Your task to perform on an android device: install app "Pluto TV - Live TV and Movies" Image 0: 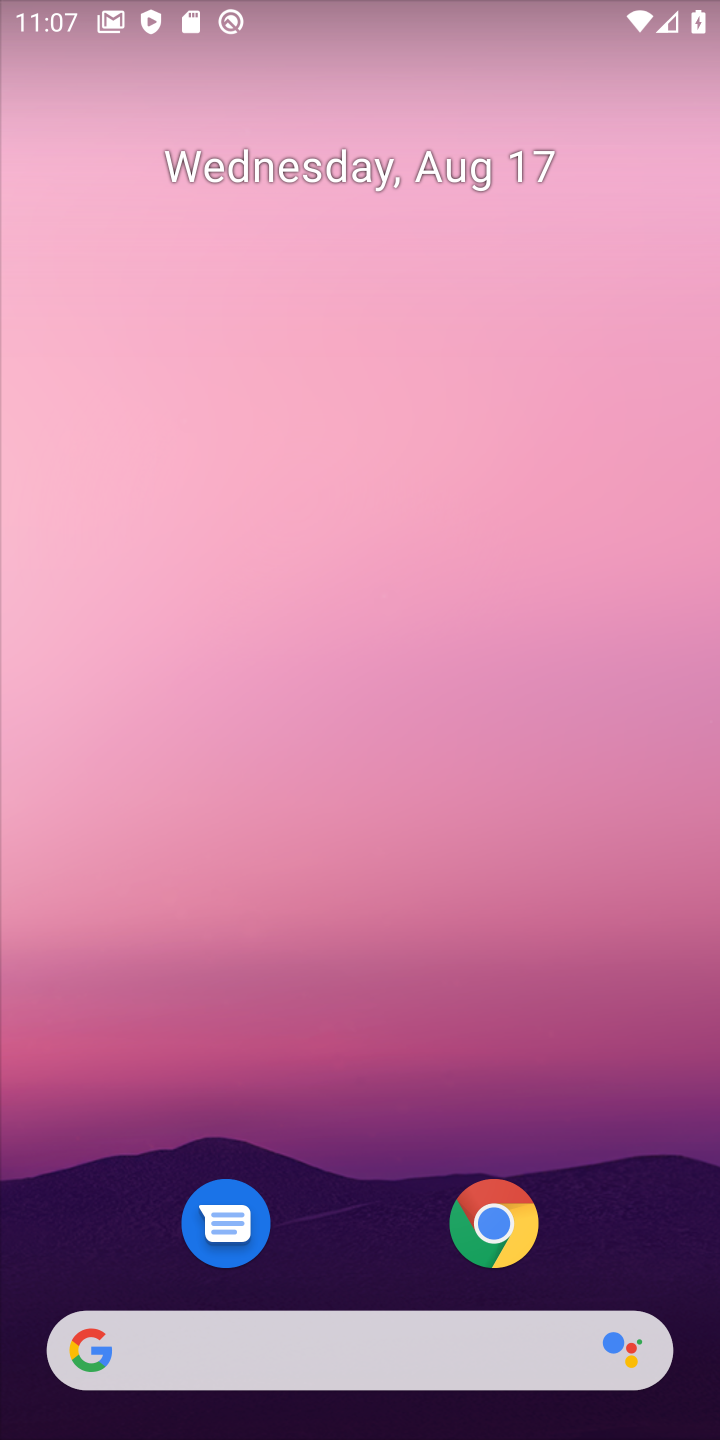
Step 0: drag from (270, 750) to (244, 182)
Your task to perform on an android device: install app "Pluto TV - Live TV and Movies" Image 1: 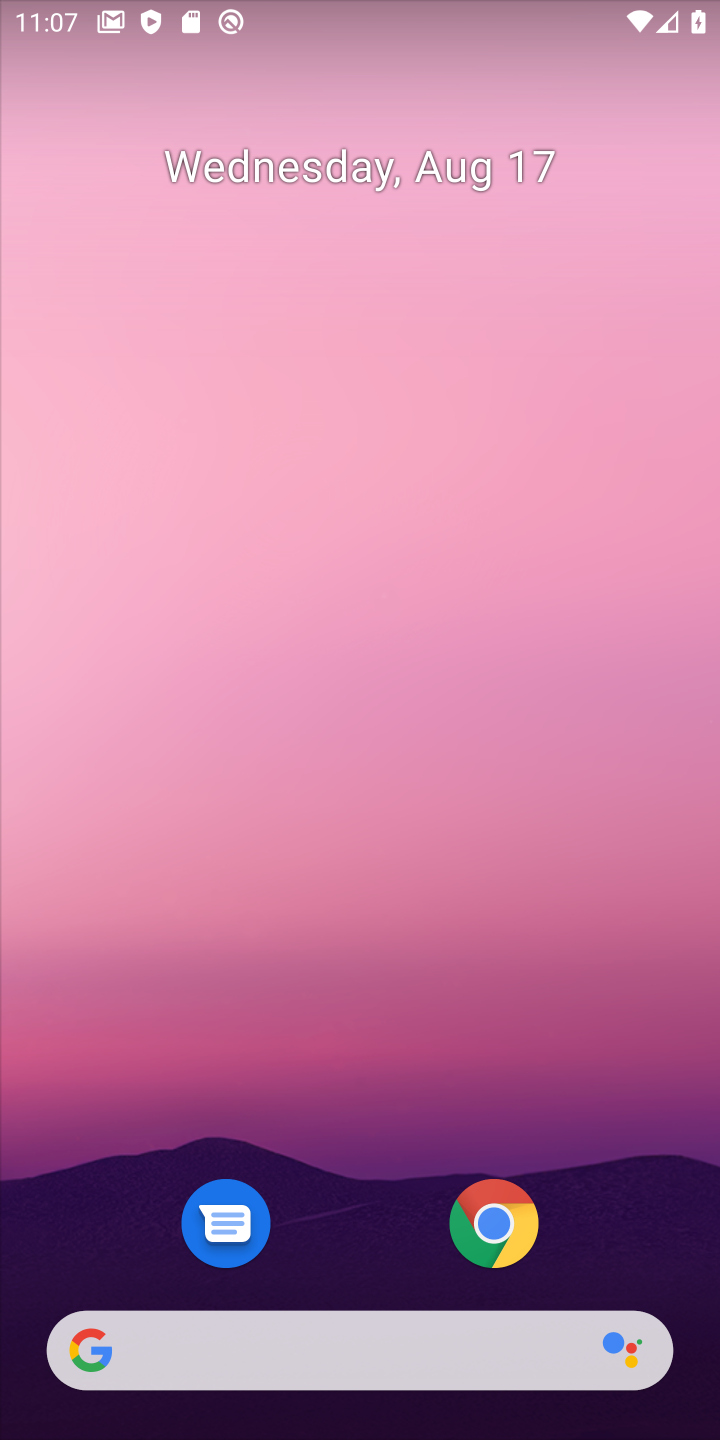
Step 1: drag from (325, 1294) to (325, 89)
Your task to perform on an android device: install app "Pluto TV - Live TV and Movies" Image 2: 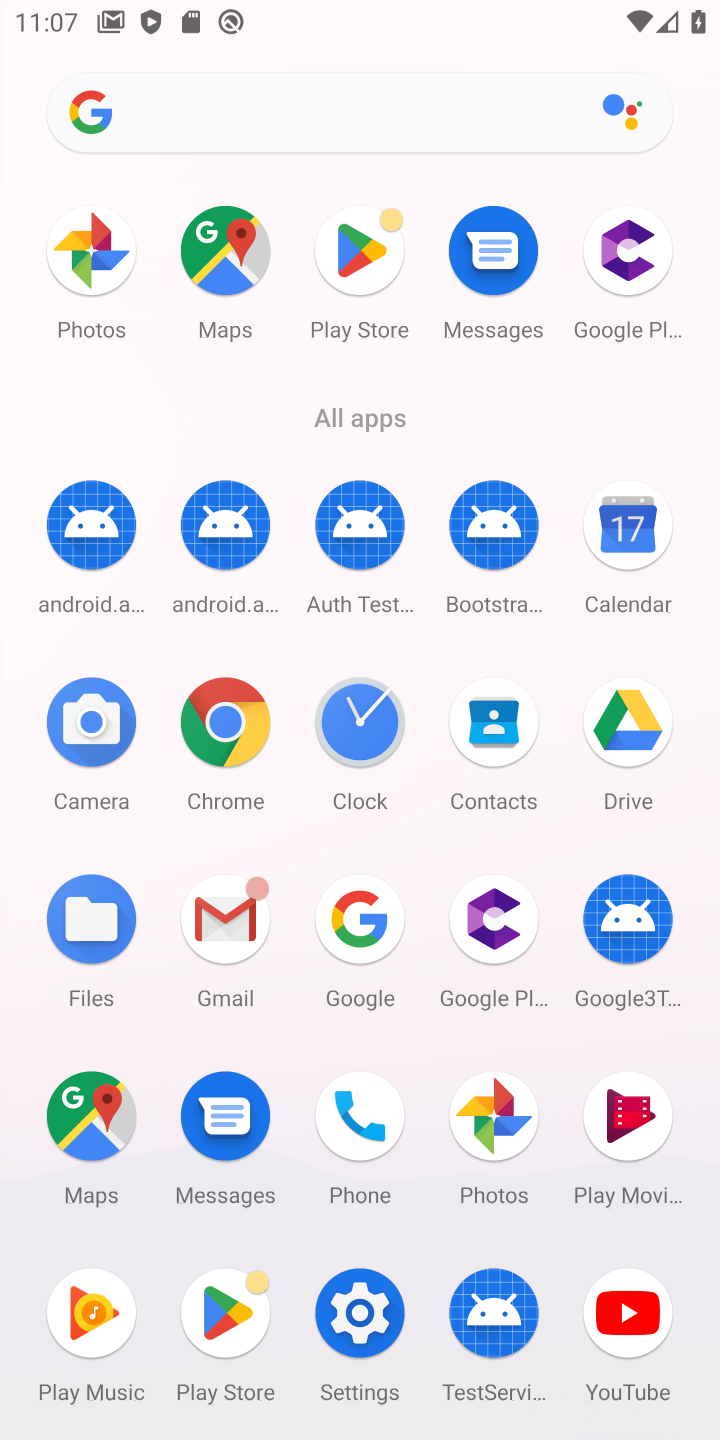
Step 2: click (215, 1323)
Your task to perform on an android device: install app "Pluto TV - Live TV and Movies" Image 3: 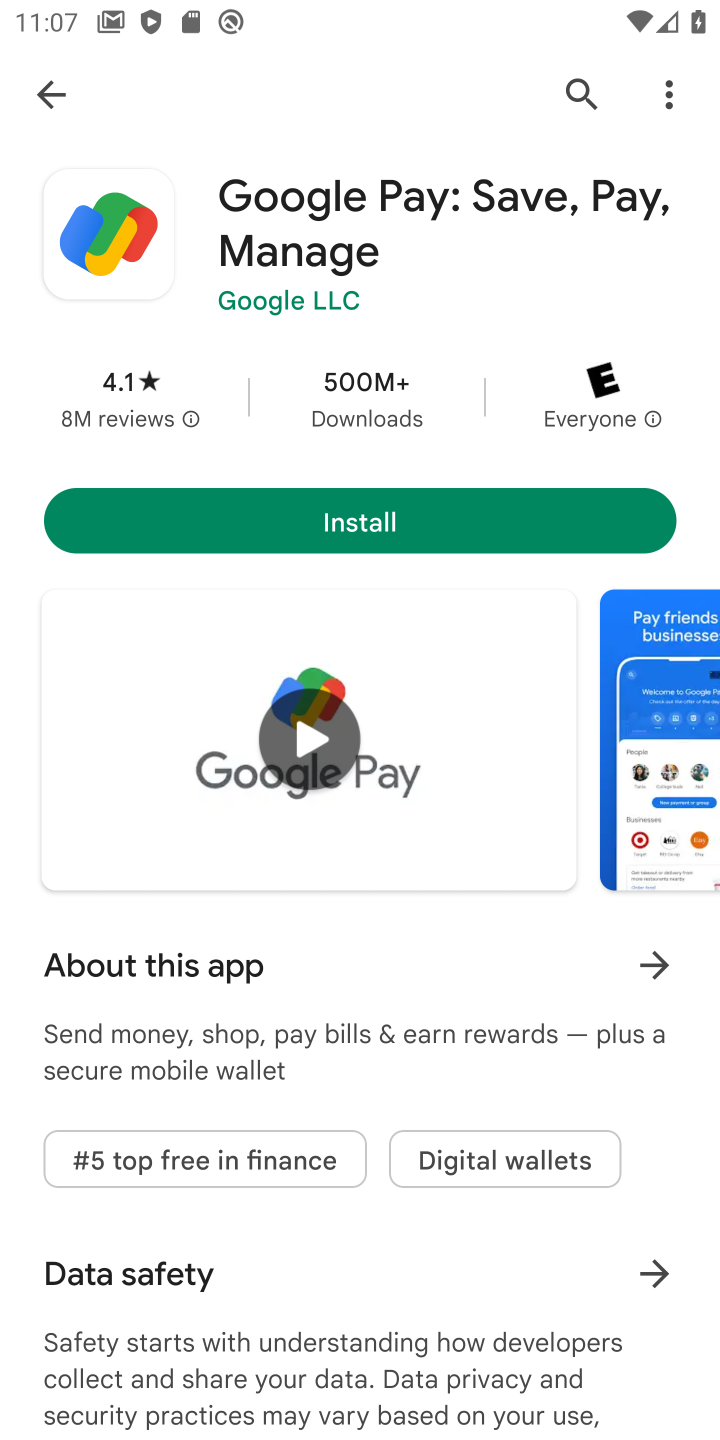
Step 3: click (572, 98)
Your task to perform on an android device: install app "Pluto TV - Live TV and Movies" Image 4: 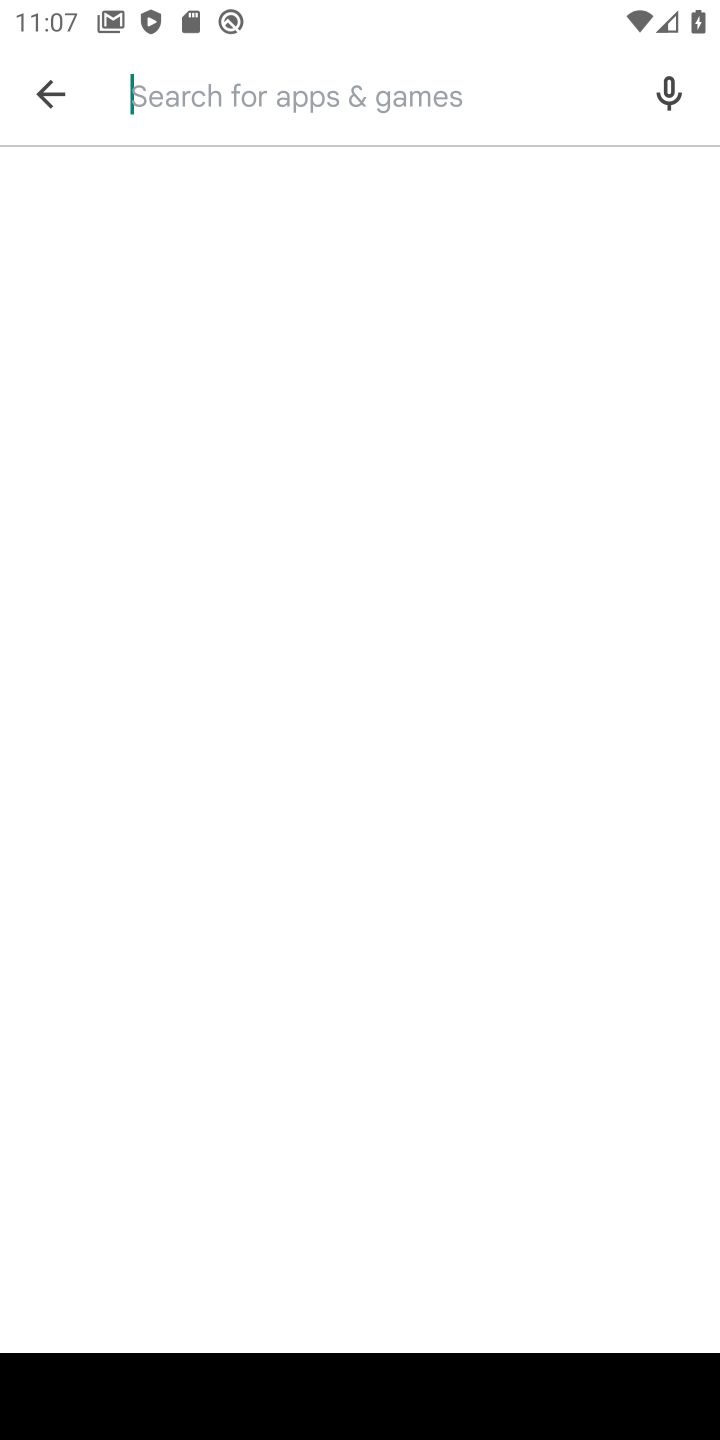
Step 4: type "Pluto TV - Live TV and Movies"
Your task to perform on an android device: install app "Pluto TV - Live TV and Movies" Image 5: 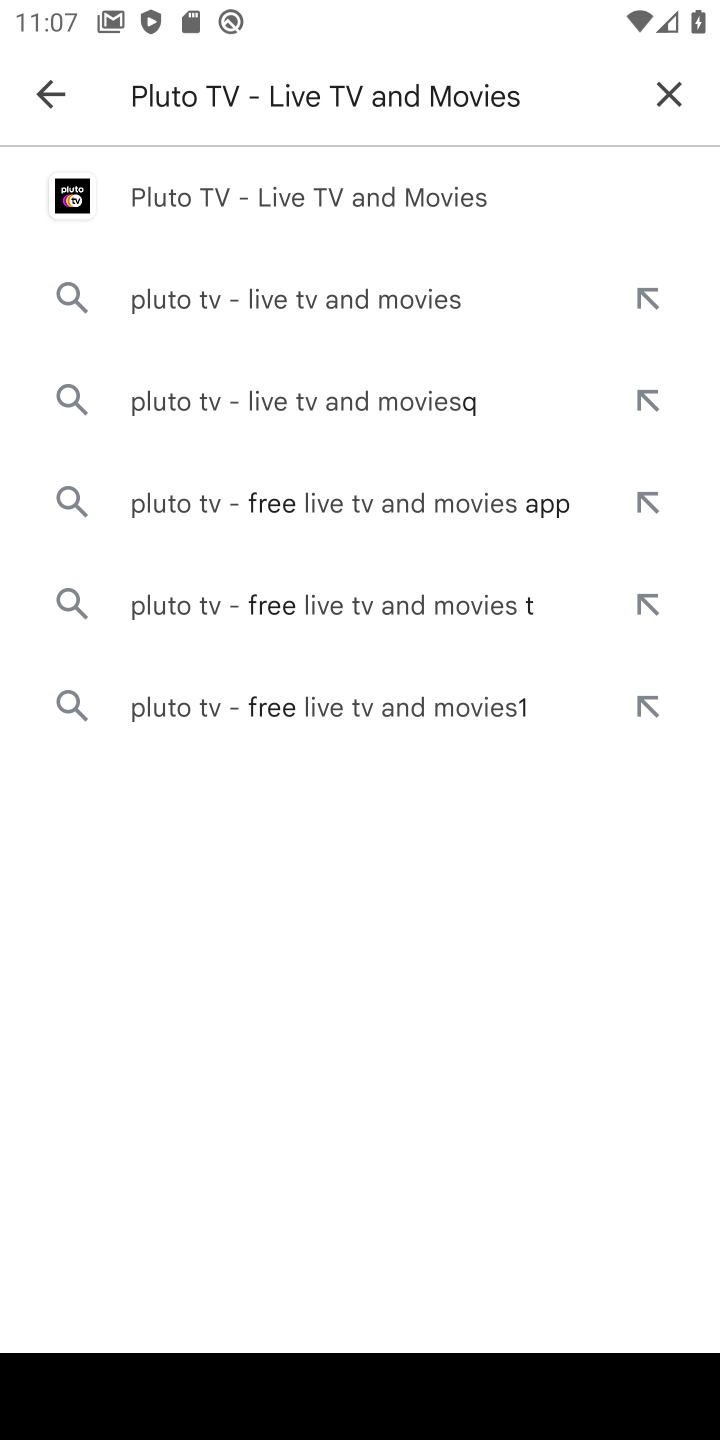
Step 5: click (169, 198)
Your task to perform on an android device: install app "Pluto TV - Live TV and Movies" Image 6: 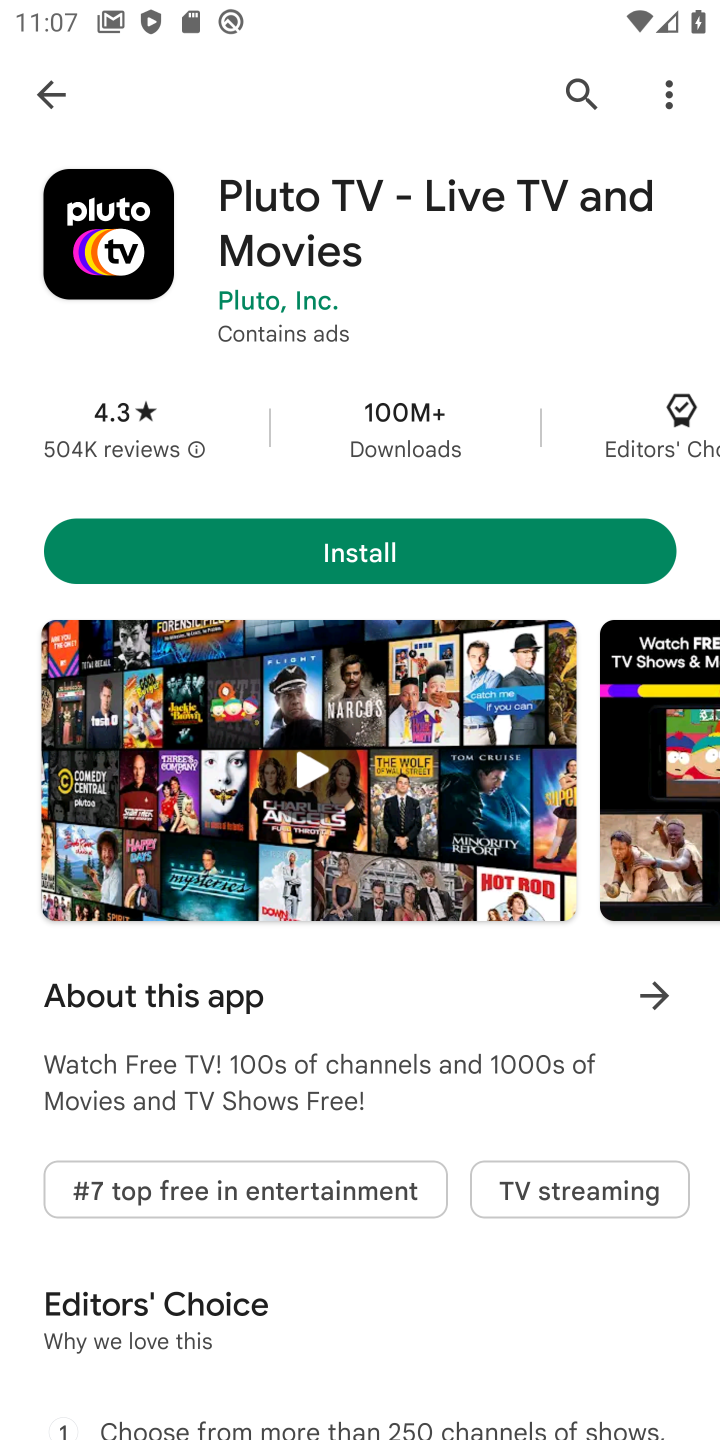
Step 6: click (354, 537)
Your task to perform on an android device: install app "Pluto TV - Live TV and Movies" Image 7: 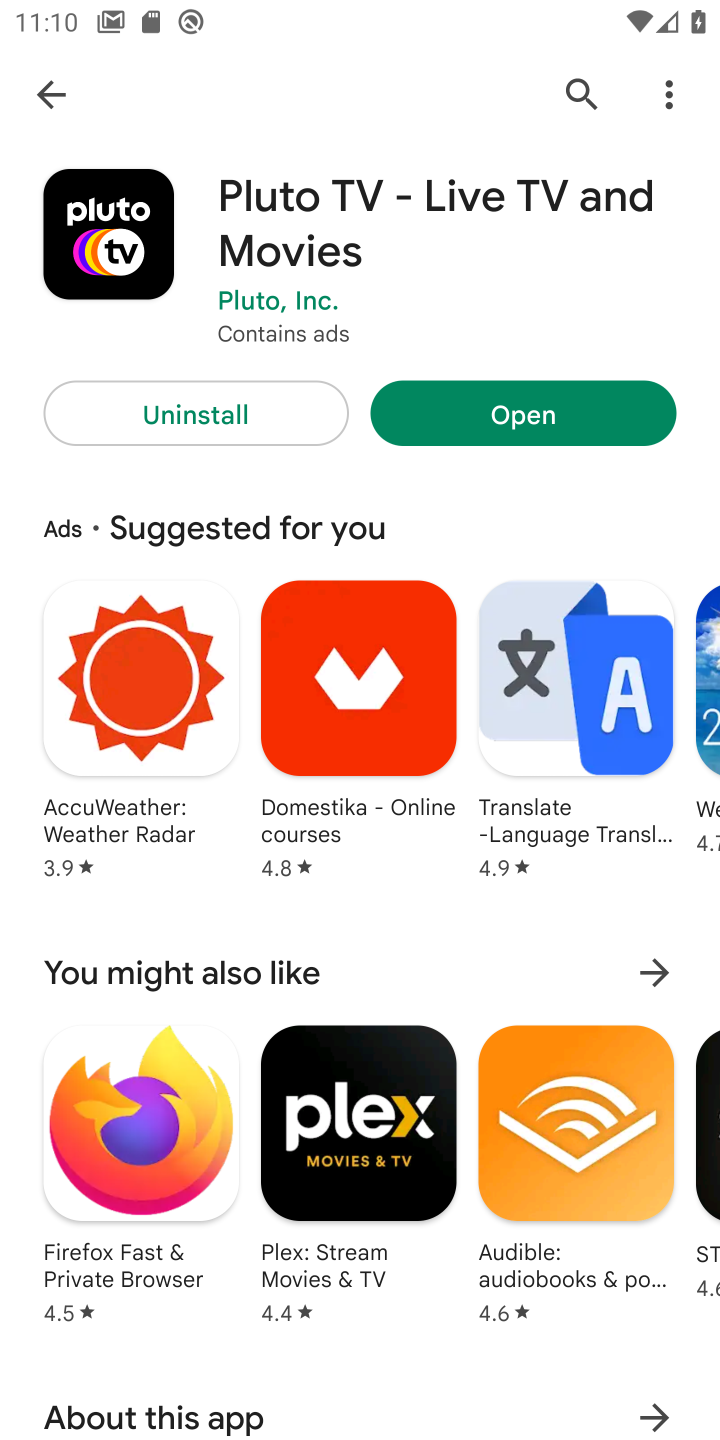
Step 7: task complete